Your task to perform on an android device: turn notification dots off Image 0: 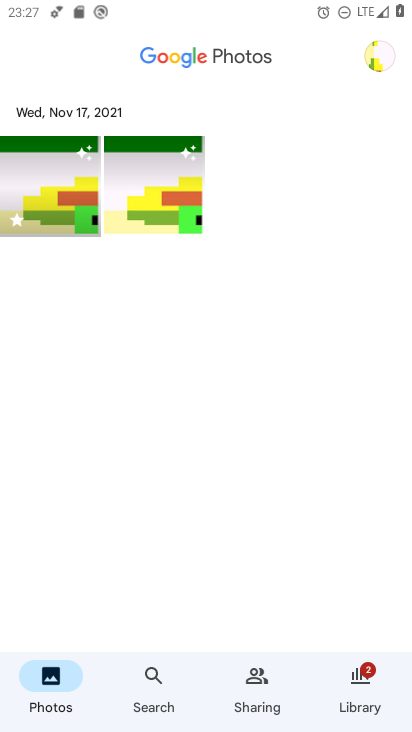
Step 0: press home button
Your task to perform on an android device: turn notification dots off Image 1: 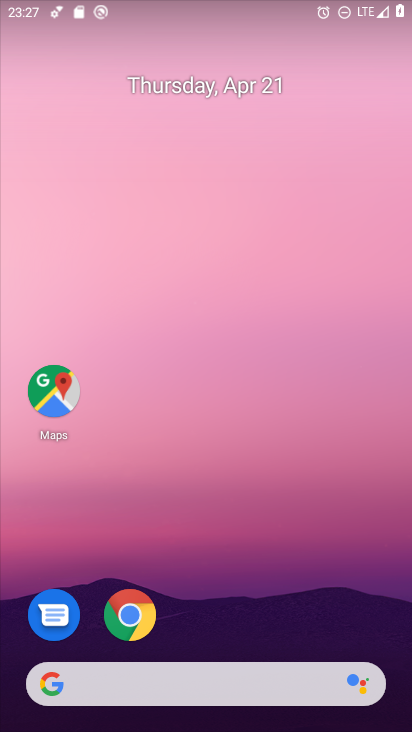
Step 1: drag from (238, 634) to (256, 189)
Your task to perform on an android device: turn notification dots off Image 2: 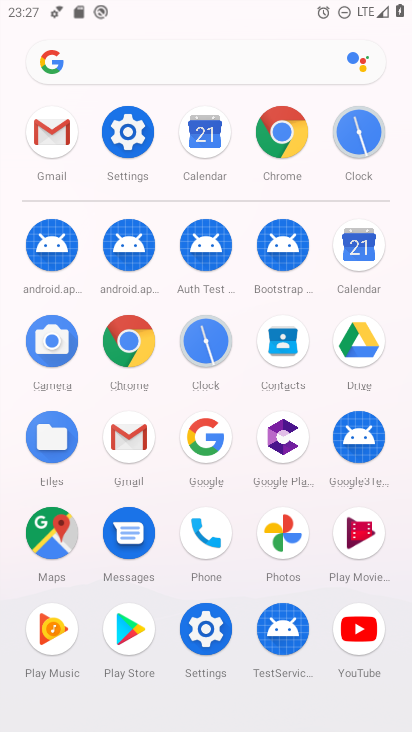
Step 2: click (206, 627)
Your task to perform on an android device: turn notification dots off Image 3: 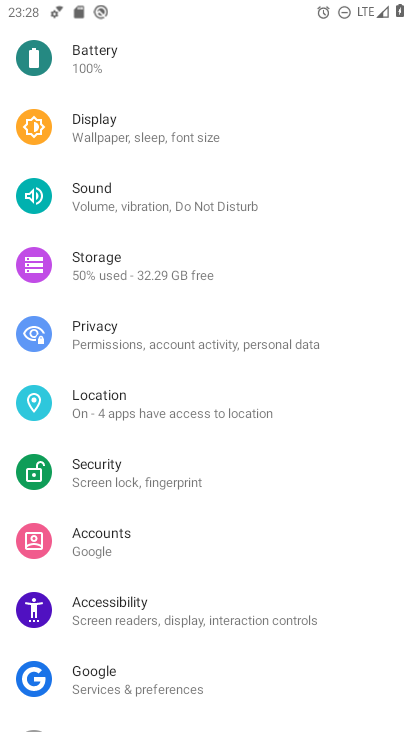
Step 3: drag from (127, 112) to (161, 598)
Your task to perform on an android device: turn notification dots off Image 4: 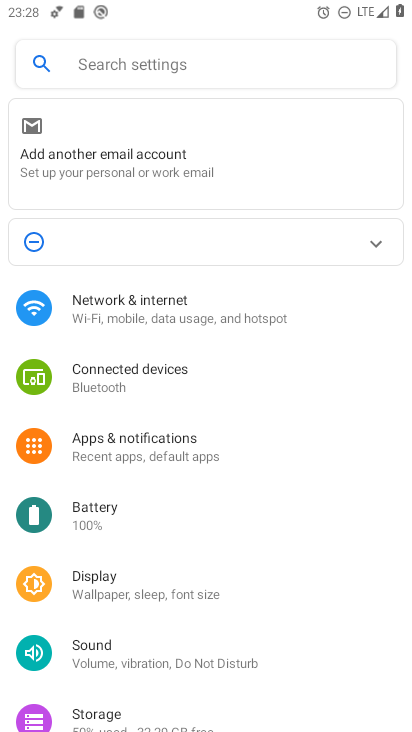
Step 4: click (171, 448)
Your task to perform on an android device: turn notification dots off Image 5: 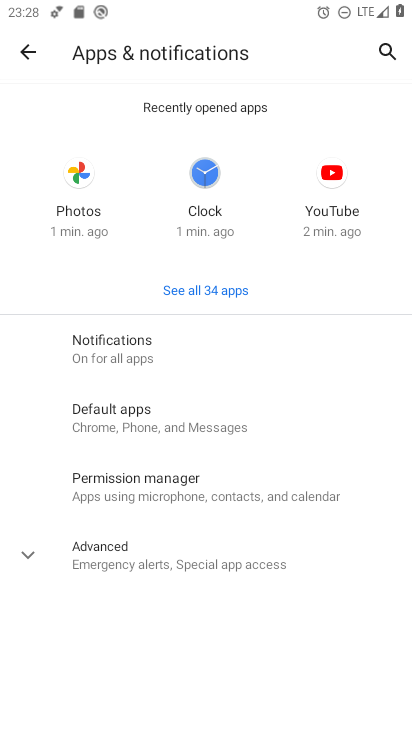
Step 5: click (160, 340)
Your task to perform on an android device: turn notification dots off Image 6: 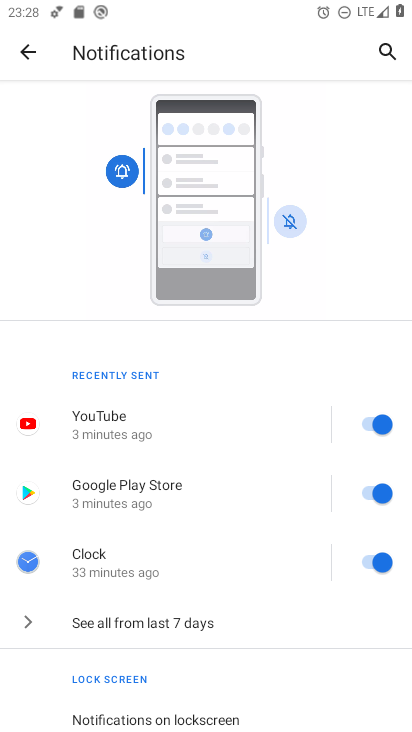
Step 6: drag from (204, 669) to (207, 289)
Your task to perform on an android device: turn notification dots off Image 7: 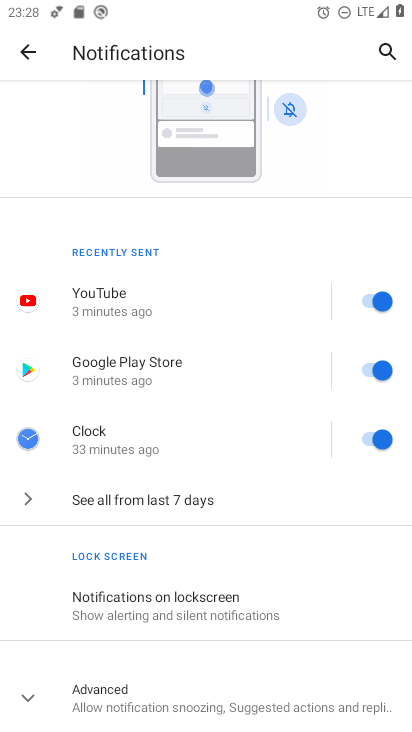
Step 7: click (30, 695)
Your task to perform on an android device: turn notification dots off Image 8: 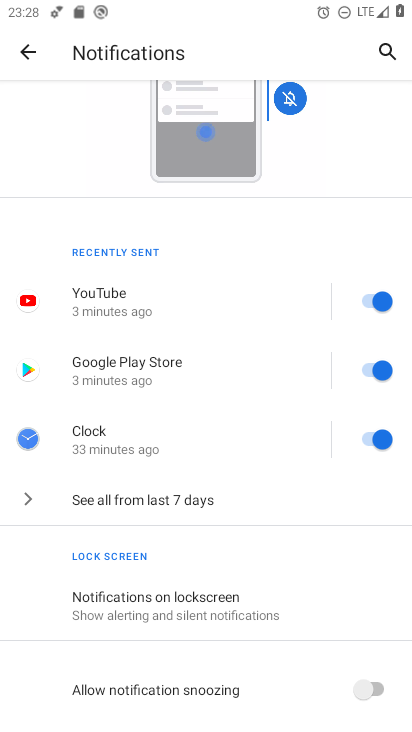
Step 8: drag from (191, 655) to (189, 342)
Your task to perform on an android device: turn notification dots off Image 9: 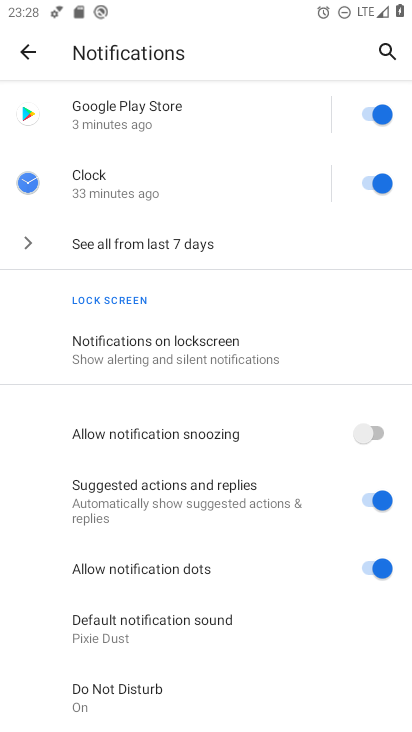
Step 9: click (369, 560)
Your task to perform on an android device: turn notification dots off Image 10: 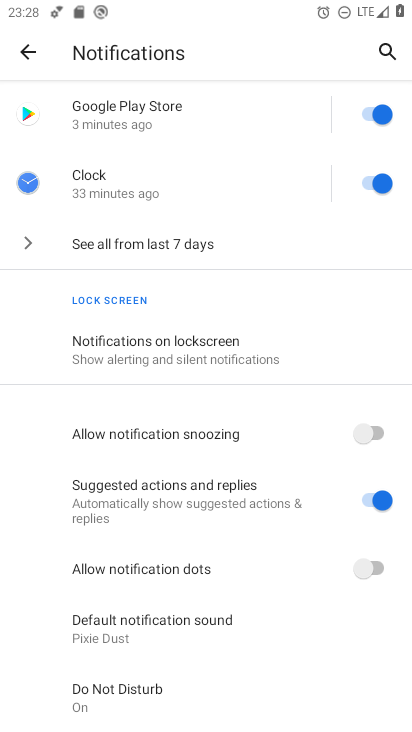
Step 10: task complete